Your task to perform on an android device: Open Google Image 0: 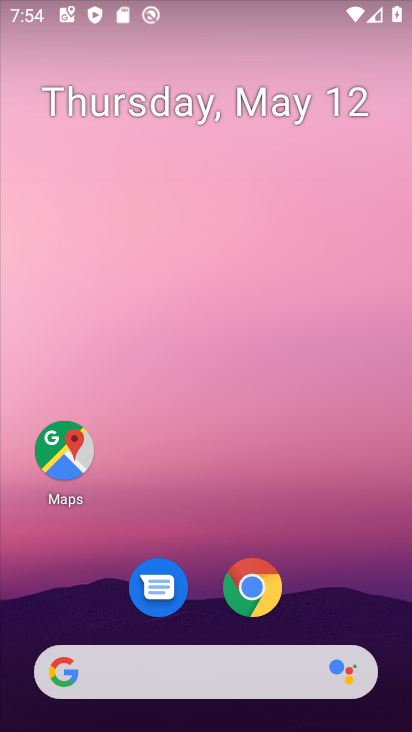
Step 0: drag from (325, 551) to (366, 265)
Your task to perform on an android device: Open Google Image 1: 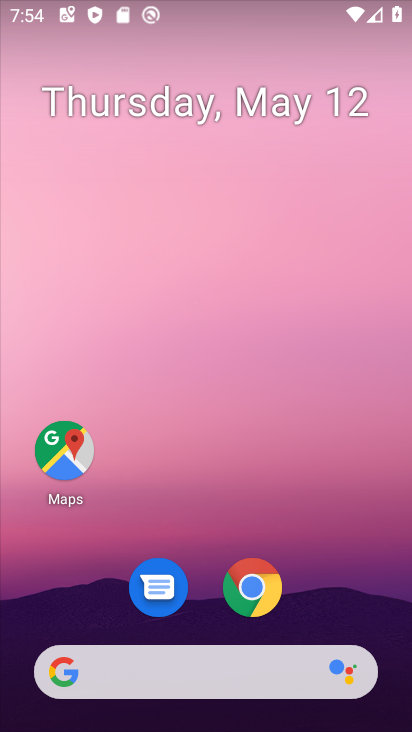
Step 1: drag from (323, 621) to (345, 91)
Your task to perform on an android device: Open Google Image 2: 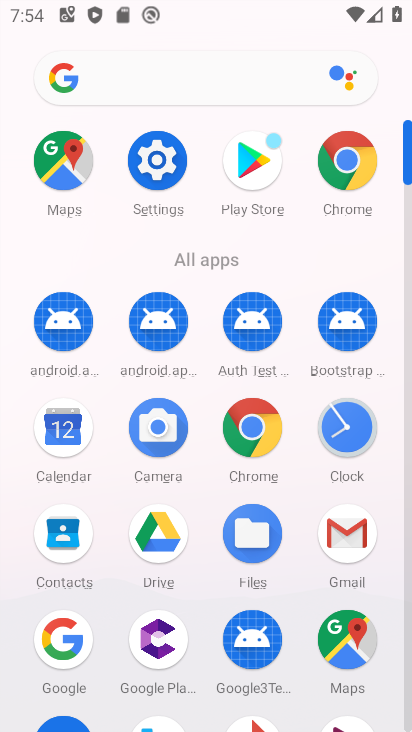
Step 2: click (63, 647)
Your task to perform on an android device: Open Google Image 3: 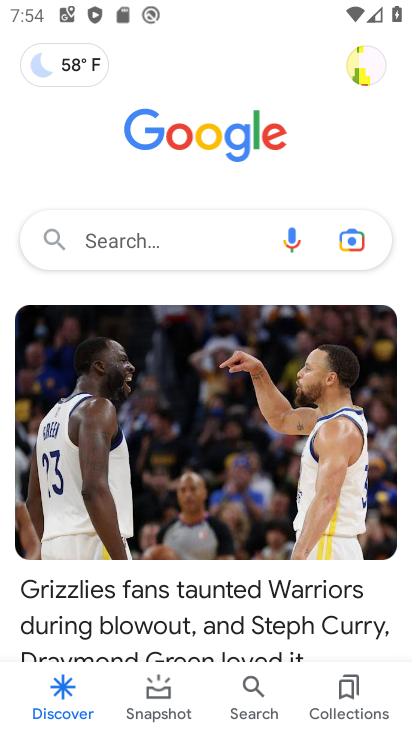
Step 3: task complete